Your task to perform on an android device: open app "DoorDash - Food Delivery" (install if not already installed) Image 0: 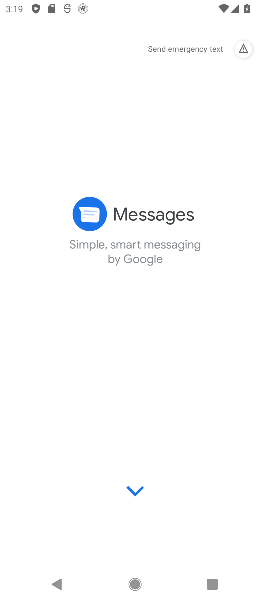
Step 0: press back button
Your task to perform on an android device: open app "DoorDash - Food Delivery" (install if not already installed) Image 1: 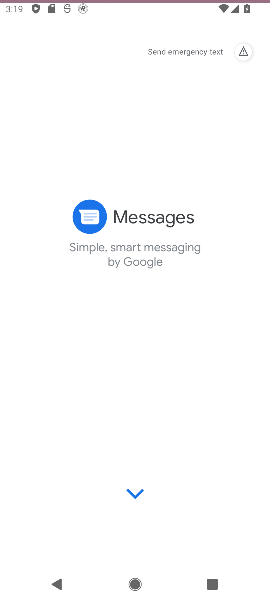
Step 1: press home button
Your task to perform on an android device: open app "DoorDash - Food Delivery" (install if not already installed) Image 2: 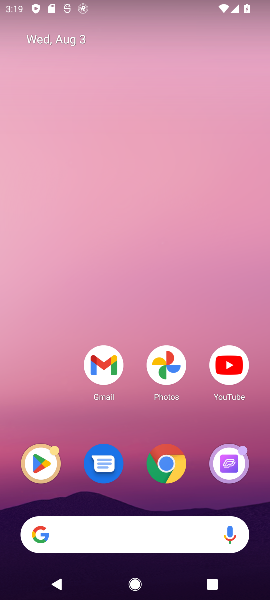
Step 2: drag from (139, 542) to (100, 140)
Your task to perform on an android device: open app "DoorDash - Food Delivery" (install if not already installed) Image 3: 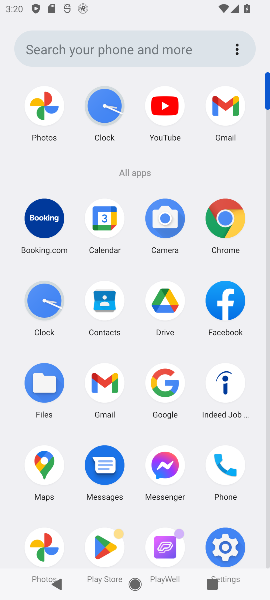
Step 3: drag from (124, 461) to (140, 237)
Your task to perform on an android device: open app "DoorDash - Food Delivery" (install if not already installed) Image 4: 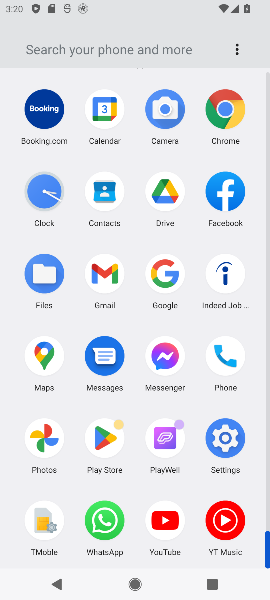
Step 4: click (98, 443)
Your task to perform on an android device: open app "DoorDash - Food Delivery" (install if not already installed) Image 5: 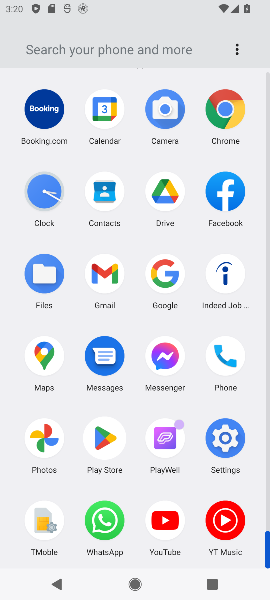
Step 5: click (98, 443)
Your task to perform on an android device: open app "DoorDash - Food Delivery" (install if not already installed) Image 6: 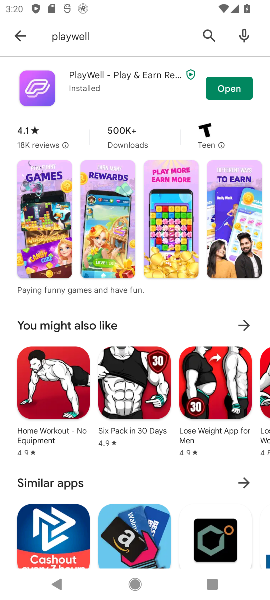
Step 6: click (211, 35)
Your task to perform on an android device: open app "DoorDash - Food Delivery" (install if not already installed) Image 7: 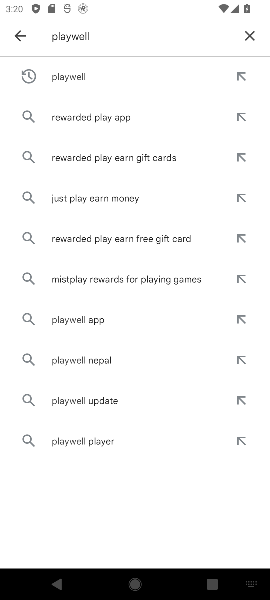
Step 7: click (248, 33)
Your task to perform on an android device: open app "DoorDash - Food Delivery" (install if not already installed) Image 8: 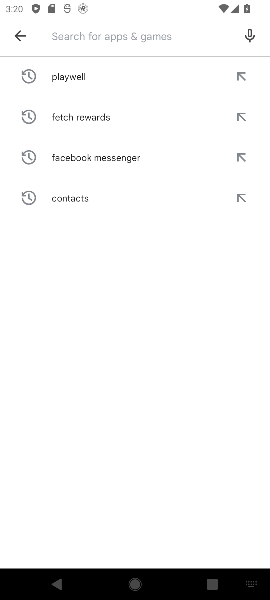
Step 8: type "doordash"
Your task to perform on an android device: open app "DoorDash - Food Delivery" (install if not already installed) Image 9: 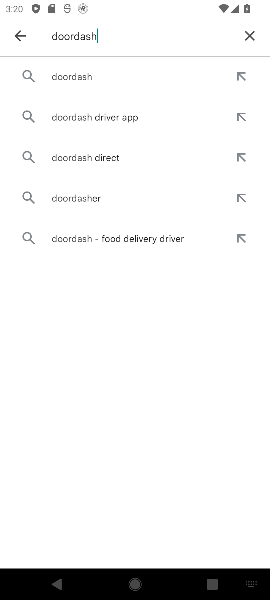
Step 9: click (67, 73)
Your task to perform on an android device: open app "DoorDash - Food Delivery" (install if not already installed) Image 10: 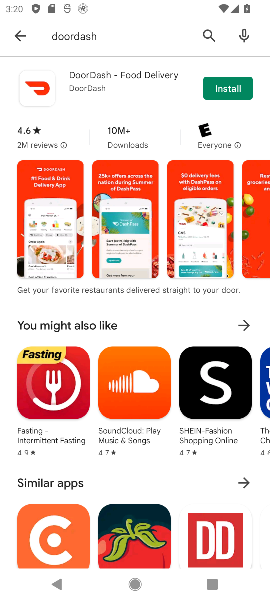
Step 10: click (222, 89)
Your task to perform on an android device: open app "DoorDash - Food Delivery" (install if not already installed) Image 11: 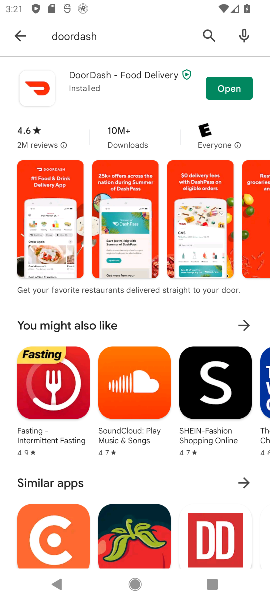
Step 11: click (228, 88)
Your task to perform on an android device: open app "DoorDash - Food Delivery" (install if not already installed) Image 12: 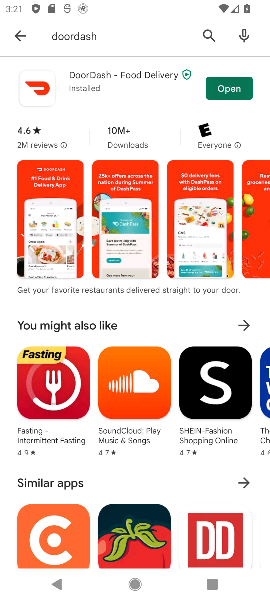
Step 12: click (227, 87)
Your task to perform on an android device: open app "DoorDash - Food Delivery" (install if not already installed) Image 13: 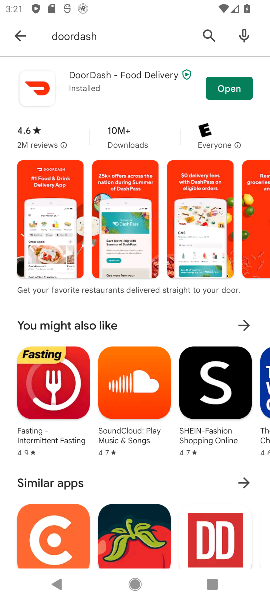
Step 13: click (227, 87)
Your task to perform on an android device: open app "DoorDash - Food Delivery" (install if not already installed) Image 14: 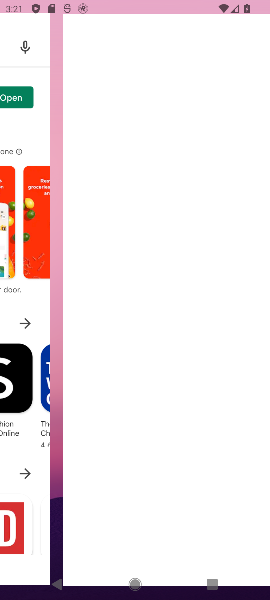
Step 14: click (227, 87)
Your task to perform on an android device: open app "DoorDash - Food Delivery" (install if not already installed) Image 15: 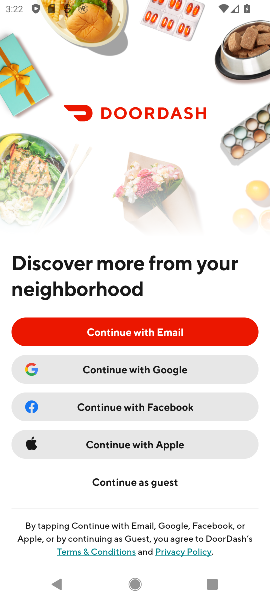
Step 15: task complete